Your task to perform on an android device: turn on priority inbox in the gmail app Image 0: 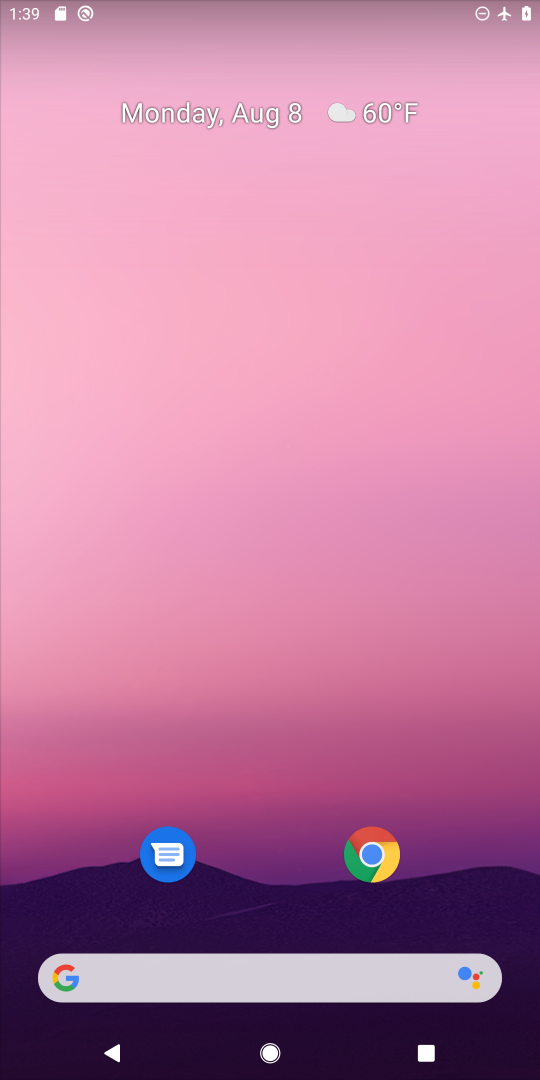
Step 0: press home button
Your task to perform on an android device: turn on priority inbox in the gmail app Image 1: 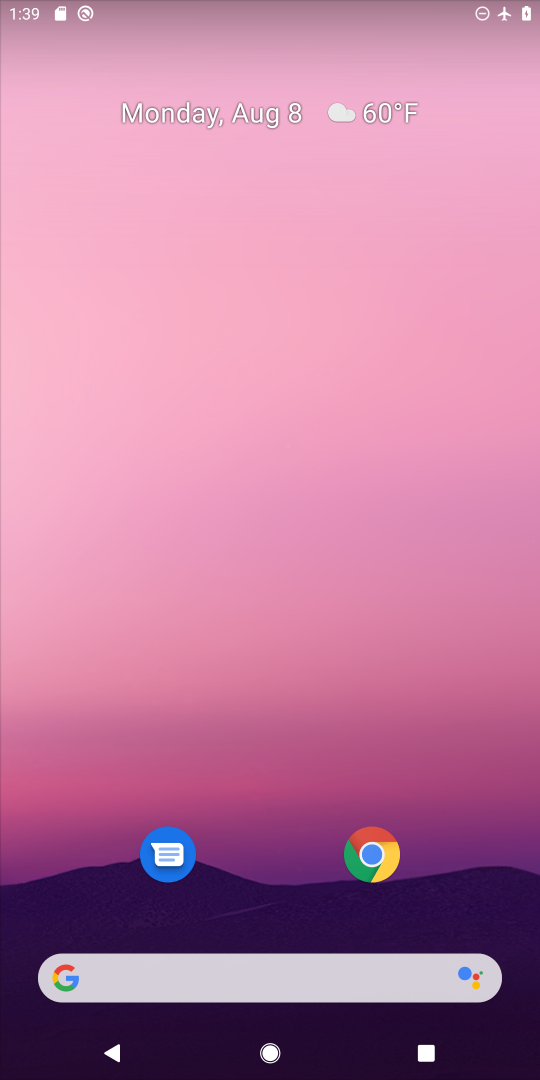
Step 1: drag from (304, 875) to (270, 73)
Your task to perform on an android device: turn on priority inbox in the gmail app Image 2: 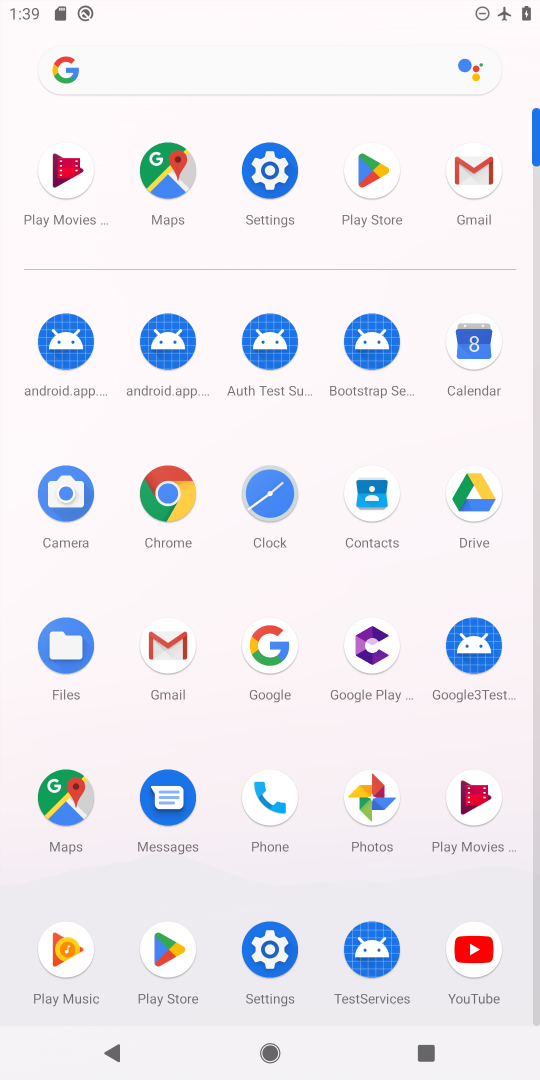
Step 2: click (471, 171)
Your task to perform on an android device: turn on priority inbox in the gmail app Image 3: 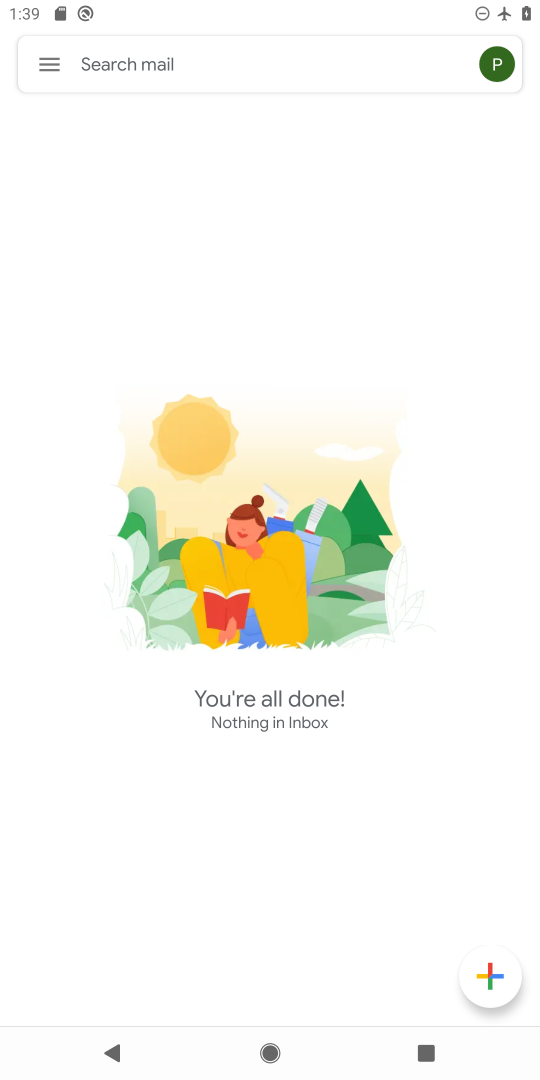
Step 3: click (56, 71)
Your task to perform on an android device: turn on priority inbox in the gmail app Image 4: 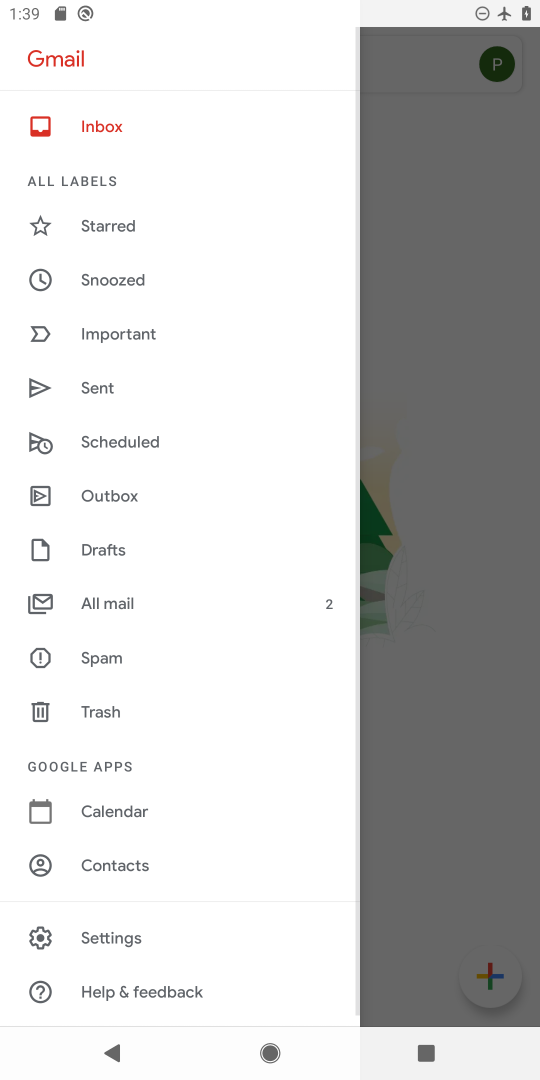
Step 4: click (103, 932)
Your task to perform on an android device: turn on priority inbox in the gmail app Image 5: 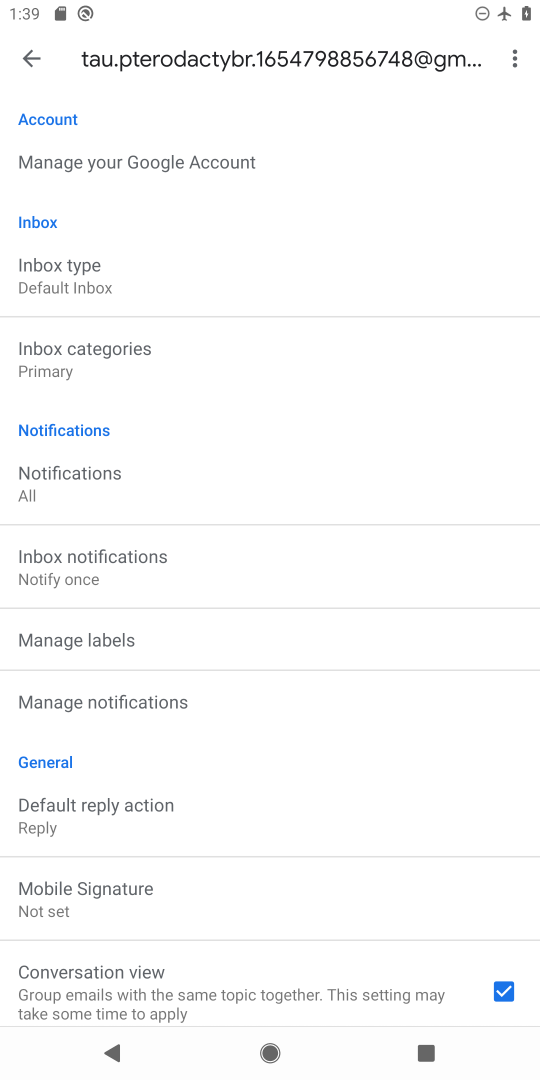
Step 5: click (74, 269)
Your task to perform on an android device: turn on priority inbox in the gmail app Image 6: 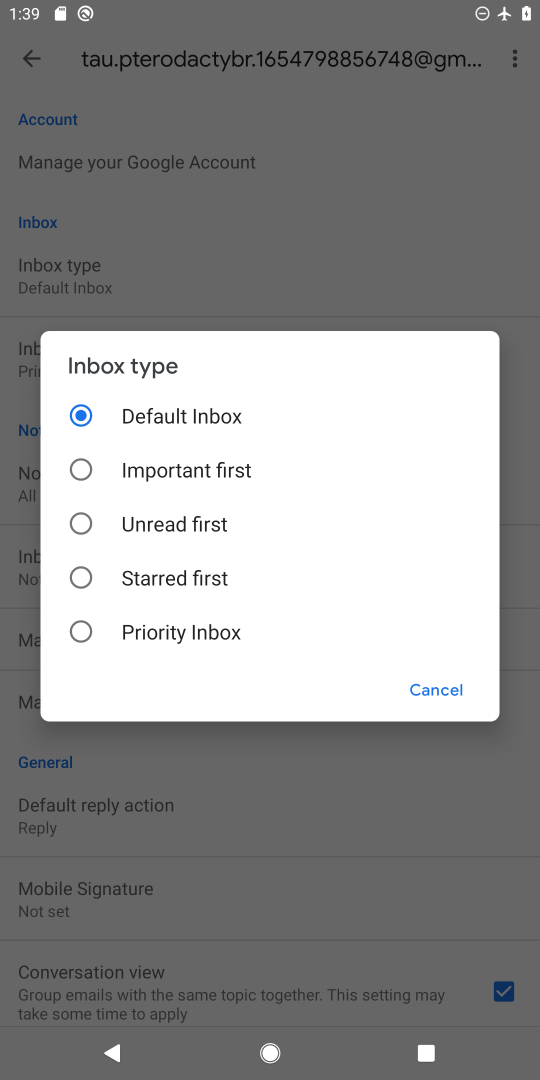
Step 6: click (83, 638)
Your task to perform on an android device: turn on priority inbox in the gmail app Image 7: 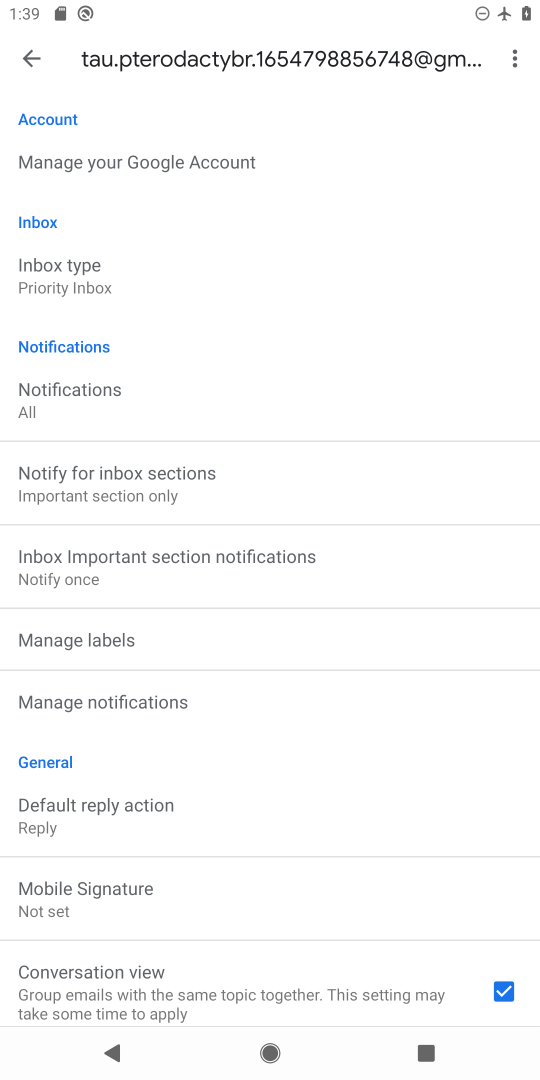
Step 7: task complete